Your task to perform on an android device: Open network settings Image 0: 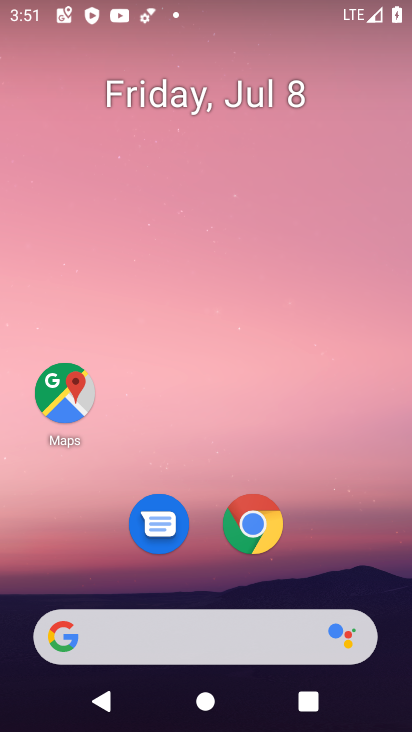
Step 0: drag from (183, 439) to (204, 0)
Your task to perform on an android device: Open network settings Image 1: 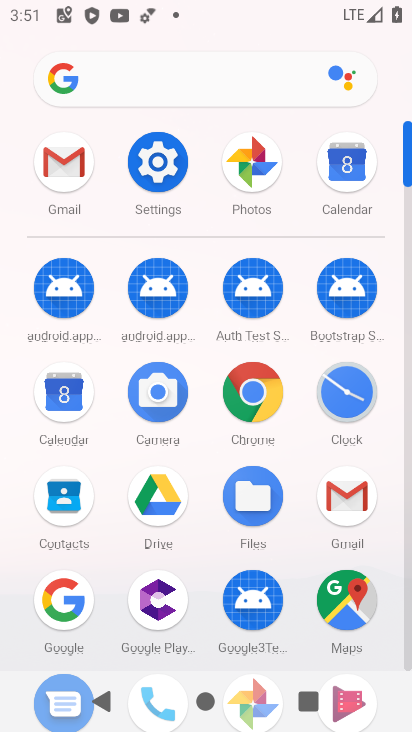
Step 1: click (169, 173)
Your task to perform on an android device: Open network settings Image 2: 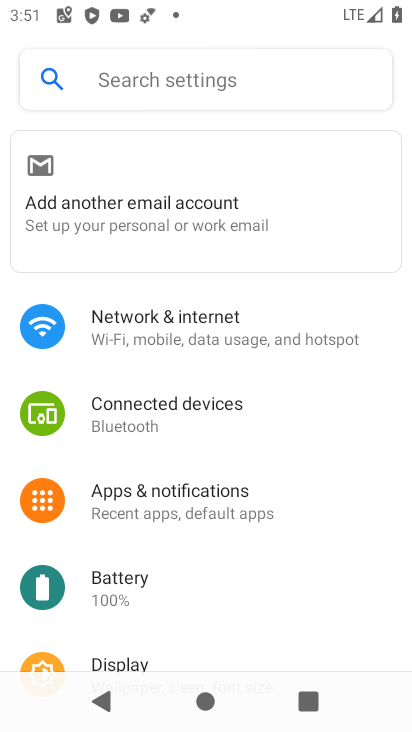
Step 2: click (199, 320)
Your task to perform on an android device: Open network settings Image 3: 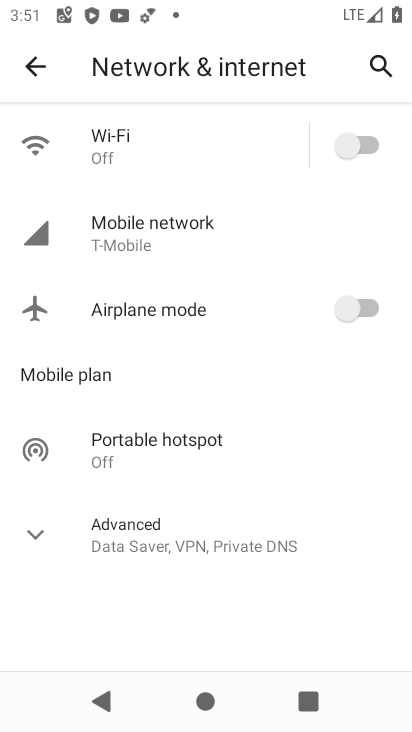
Step 3: task complete